Your task to perform on an android device: Open calendar and show me the first week of next month Image 0: 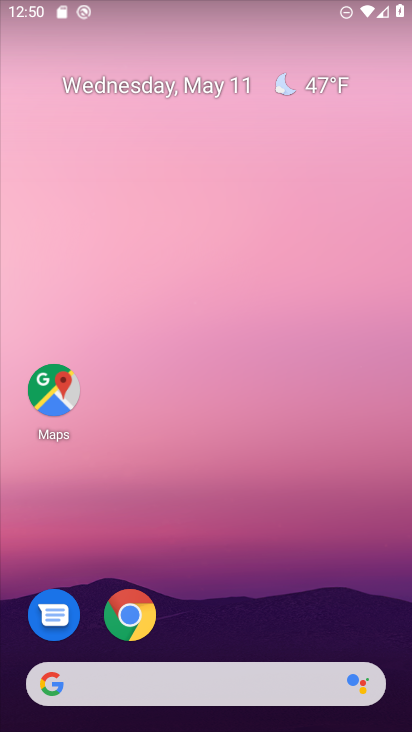
Step 0: drag from (272, 566) to (323, 111)
Your task to perform on an android device: Open calendar and show me the first week of next month Image 1: 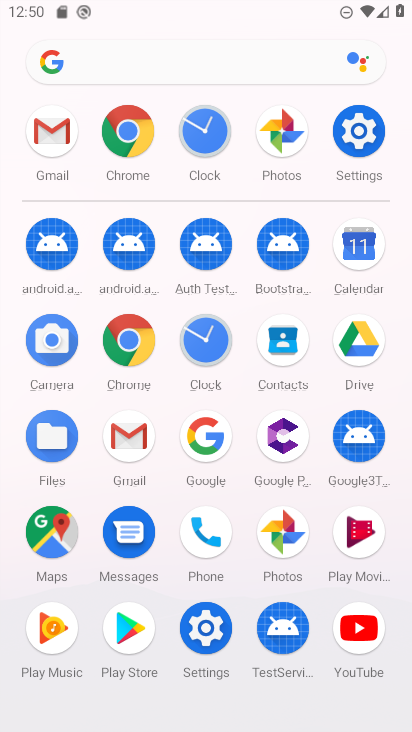
Step 1: press home button
Your task to perform on an android device: Open calendar and show me the first week of next month Image 2: 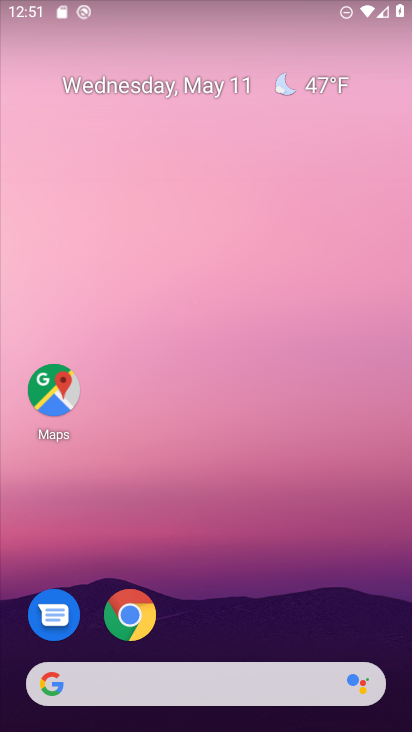
Step 2: drag from (305, 517) to (254, 52)
Your task to perform on an android device: Open calendar and show me the first week of next month Image 3: 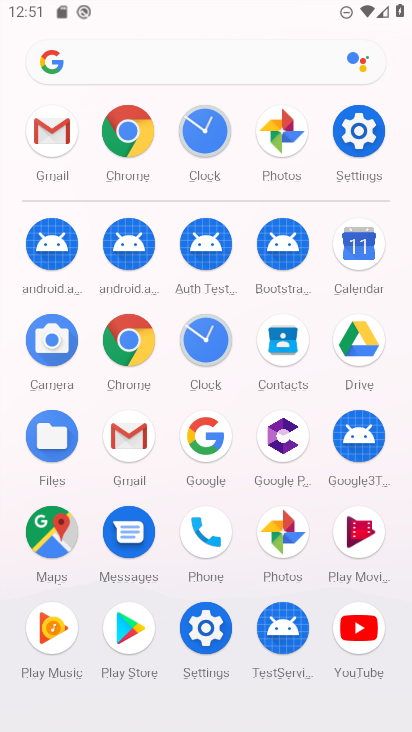
Step 3: click (368, 267)
Your task to perform on an android device: Open calendar and show me the first week of next month Image 4: 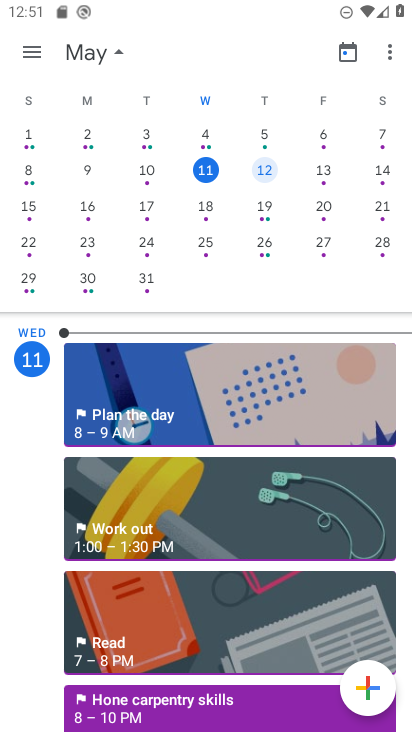
Step 4: drag from (341, 245) to (11, 137)
Your task to perform on an android device: Open calendar and show me the first week of next month Image 5: 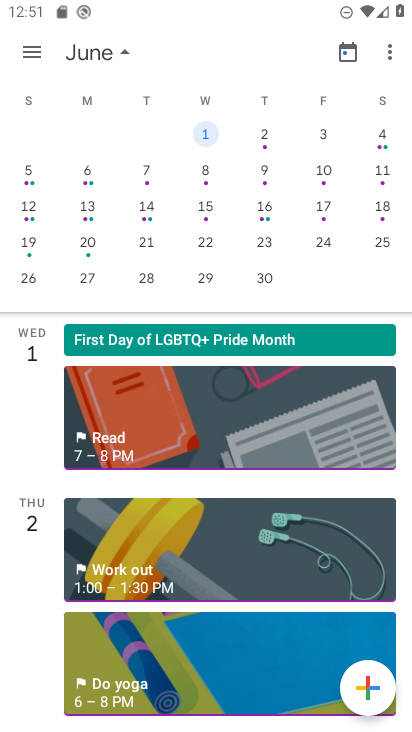
Step 5: click (135, 168)
Your task to perform on an android device: Open calendar and show me the first week of next month Image 6: 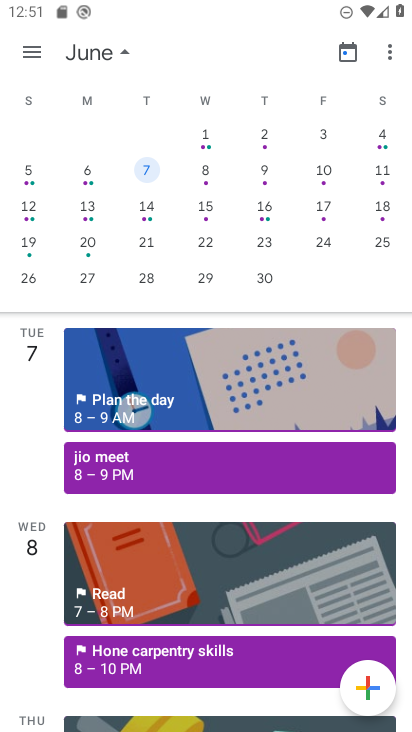
Step 6: task complete